Your task to perform on an android device: turn on translation in the chrome app Image 0: 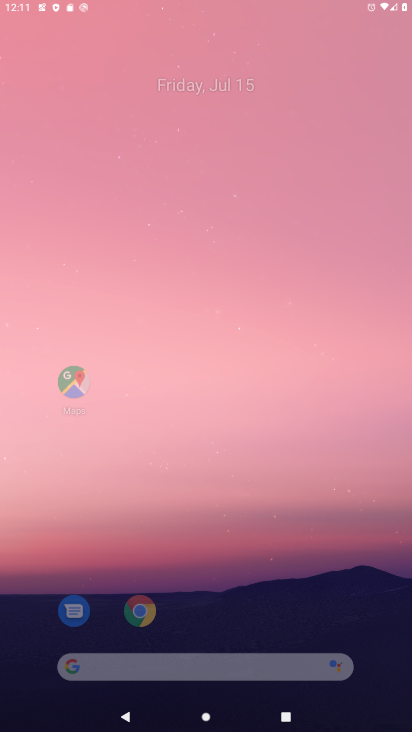
Step 0: press home button
Your task to perform on an android device: turn on translation in the chrome app Image 1: 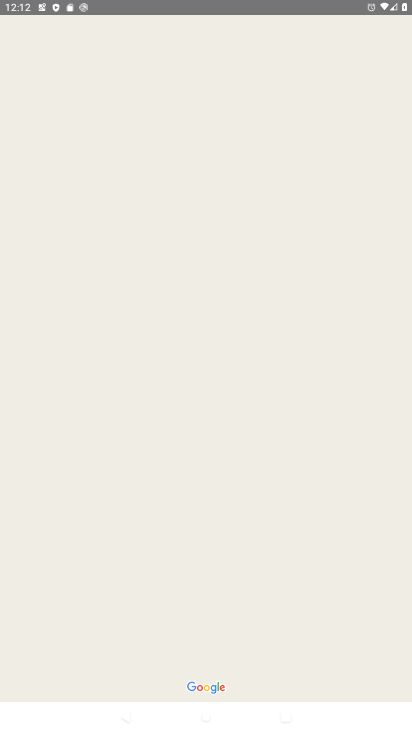
Step 1: click (232, 158)
Your task to perform on an android device: turn on translation in the chrome app Image 2: 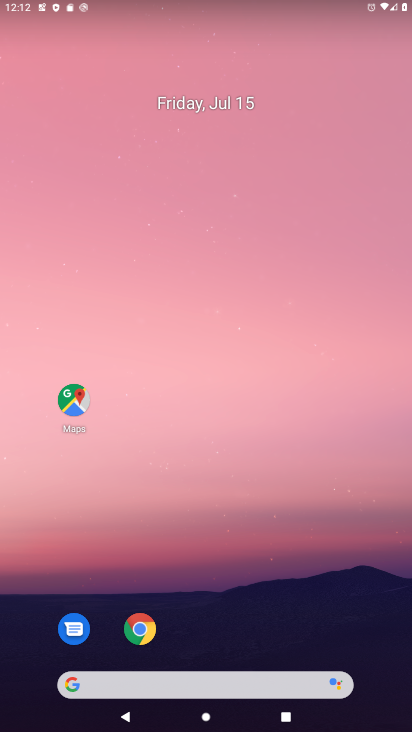
Step 2: drag from (231, 600) to (231, 87)
Your task to perform on an android device: turn on translation in the chrome app Image 3: 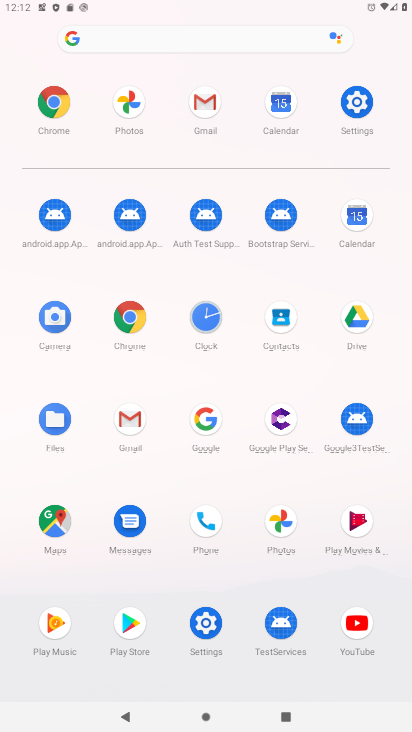
Step 3: click (52, 102)
Your task to perform on an android device: turn on translation in the chrome app Image 4: 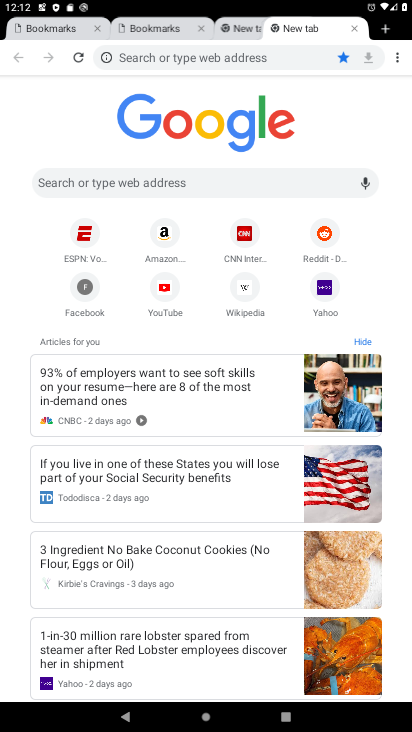
Step 4: drag from (397, 52) to (284, 263)
Your task to perform on an android device: turn on translation in the chrome app Image 5: 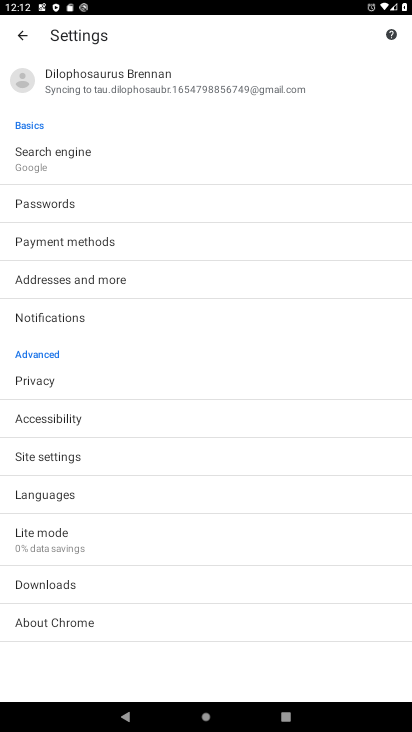
Step 5: click (41, 498)
Your task to perform on an android device: turn on translation in the chrome app Image 6: 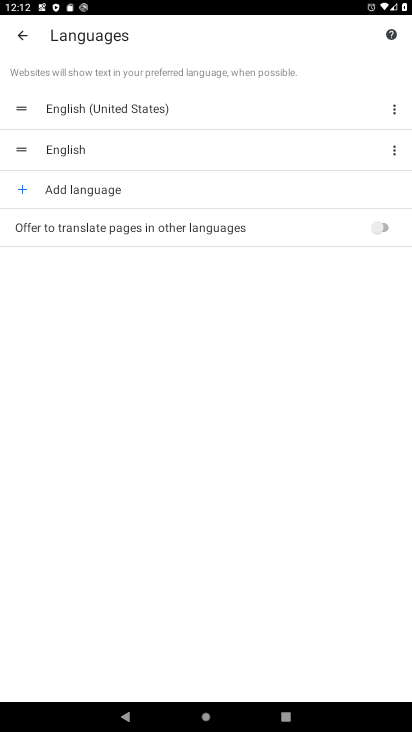
Step 6: click (374, 226)
Your task to perform on an android device: turn on translation in the chrome app Image 7: 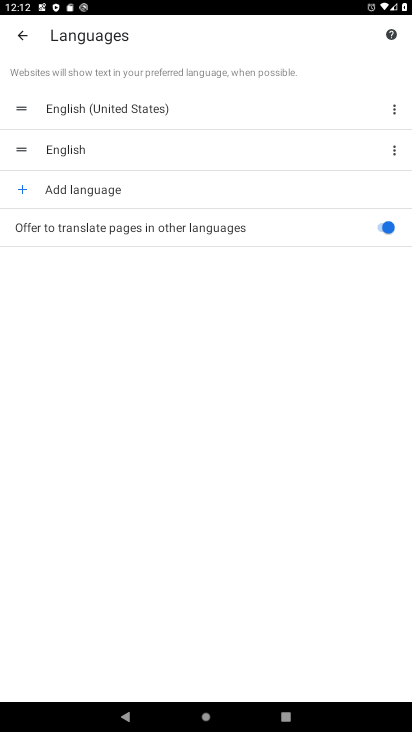
Step 7: task complete